Your task to perform on an android device: empty trash in google photos Image 0: 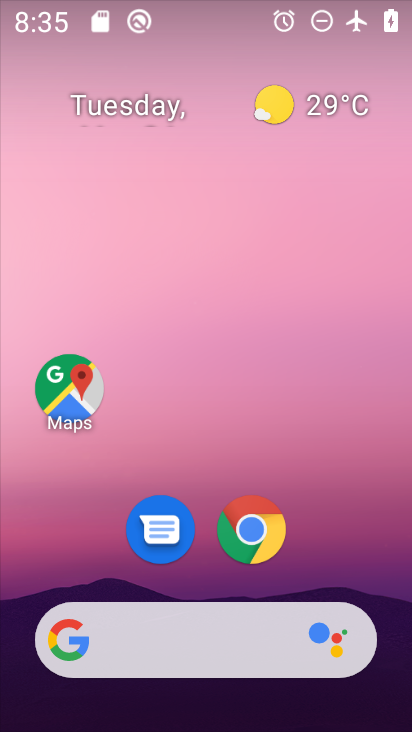
Step 0: drag from (394, 632) to (273, 61)
Your task to perform on an android device: empty trash in google photos Image 1: 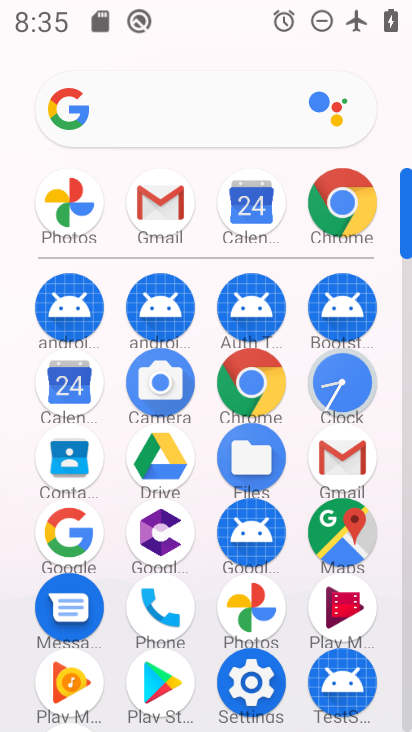
Step 1: click (260, 601)
Your task to perform on an android device: empty trash in google photos Image 2: 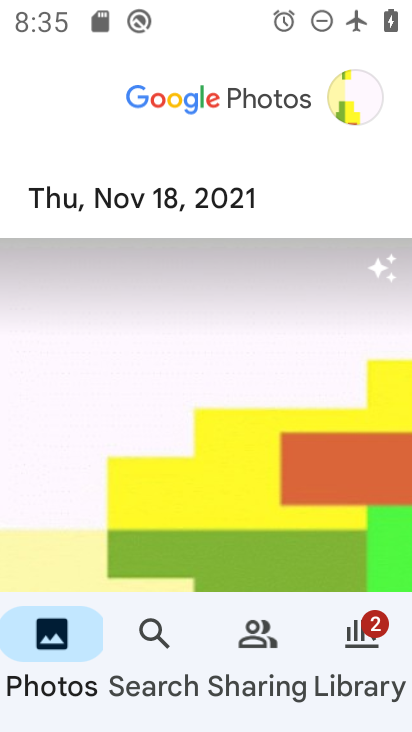
Step 2: click (360, 655)
Your task to perform on an android device: empty trash in google photos Image 3: 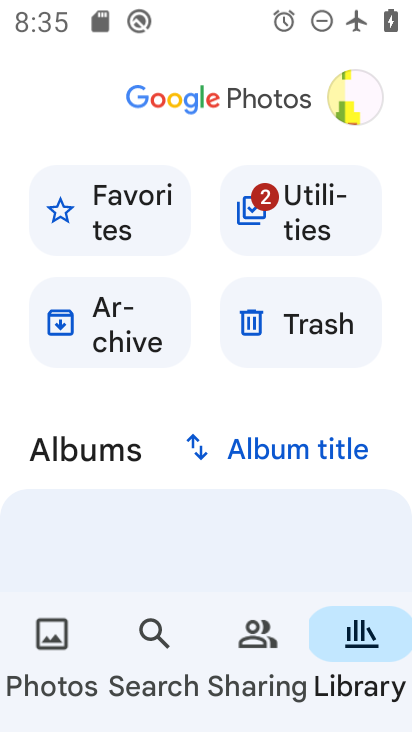
Step 3: click (327, 333)
Your task to perform on an android device: empty trash in google photos Image 4: 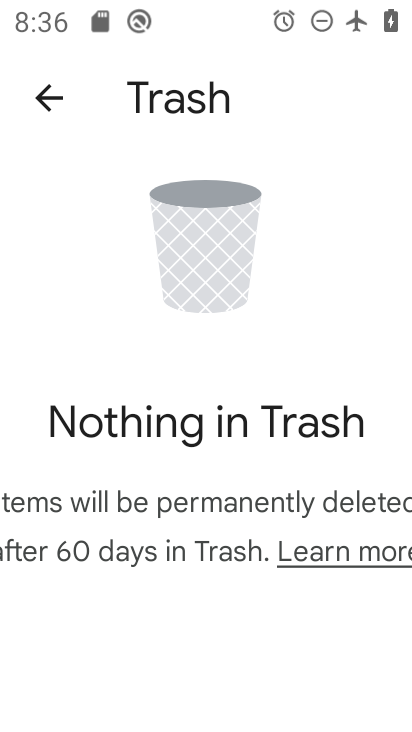
Step 4: task complete